Your task to perform on an android device: Open Google Chrome Image 0: 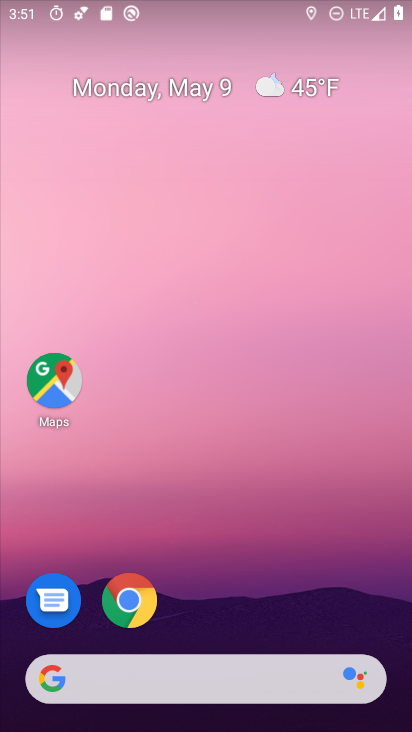
Step 0: click (144, 596)
Your task to perform on an android device: Open Google Chrome Image 1: 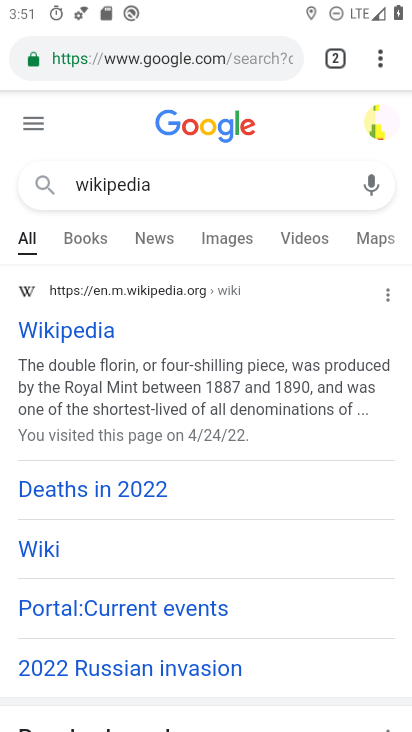
Step 1: task complete